Your task to perform on an android device: Is it going to rain this weekend? Image 0: 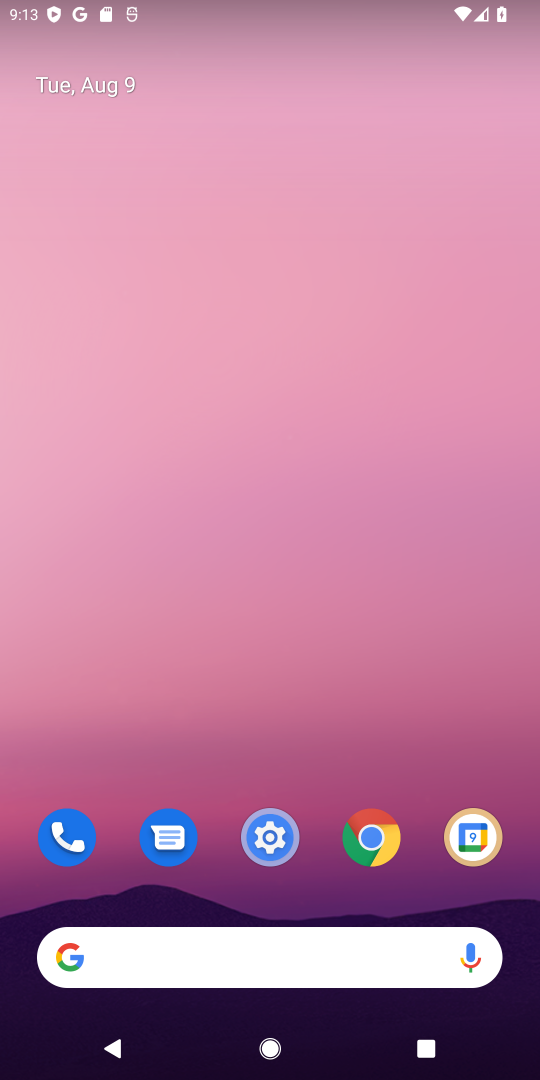
Step 0: drag from (328, 894) to (314, 363)
Your task to perform on an android device: Is it going to rain this weekend? Image 1: 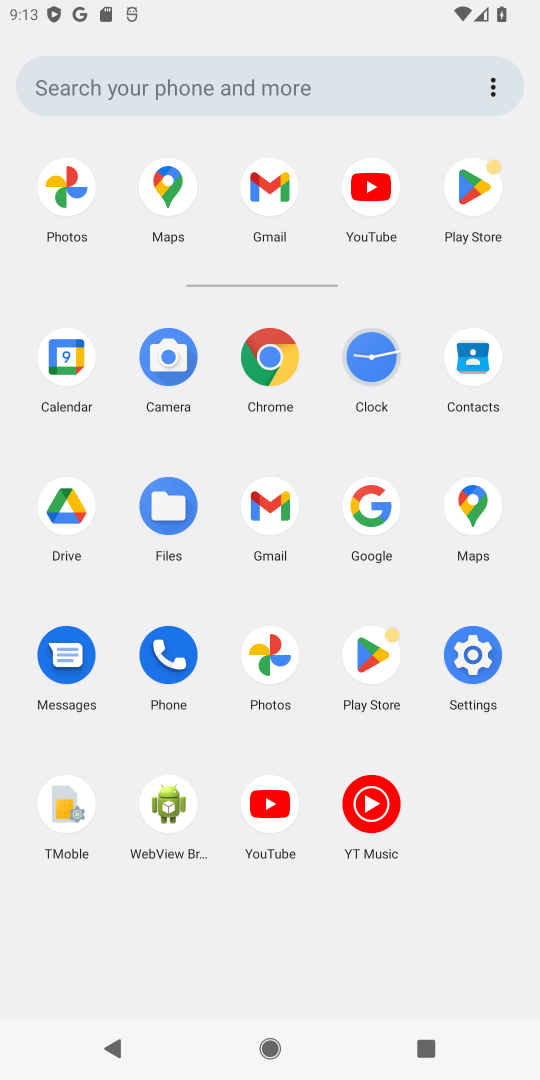
Step 1: click (371, 502)
Your task to perform on an android device: Is it going to rain this weekend? Image 2: 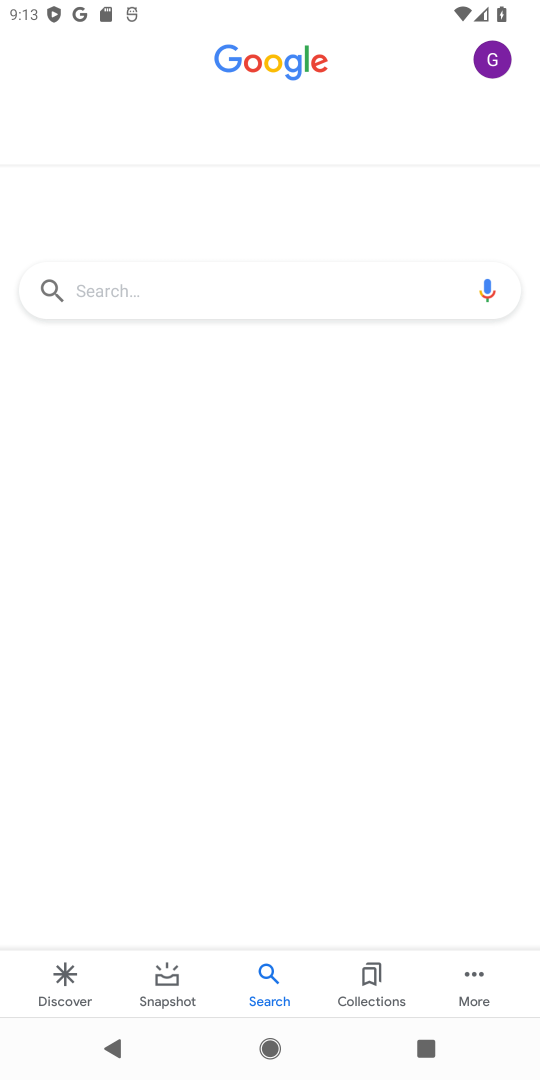
Step 2: click (278, 286)
Your task to perform on an android device: Is it going to rain this weekend? Image 3: 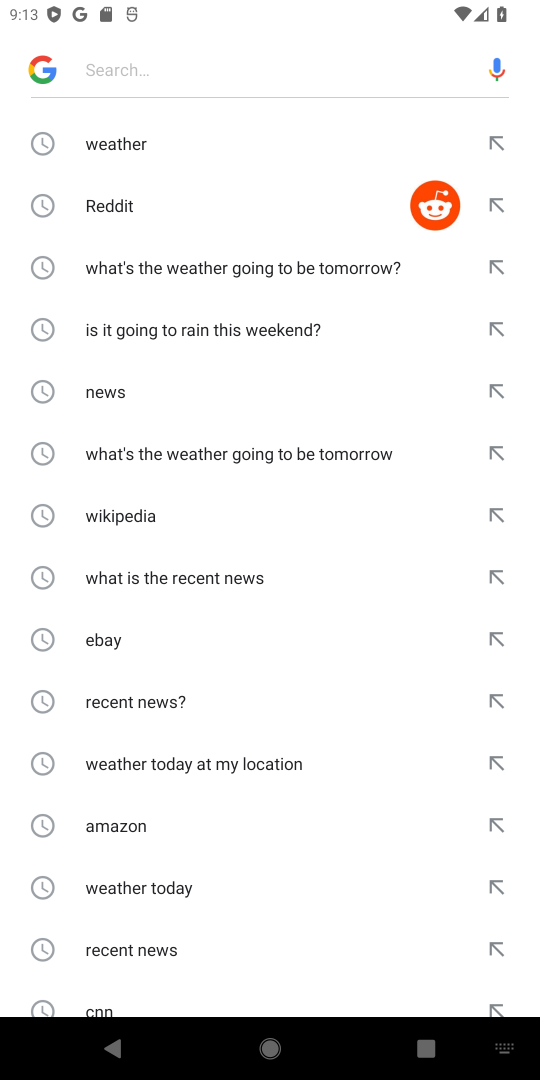
Step 3: click (112, 143)
Your task to perform on an android device: Is it going to rain this weekend? Image 4: 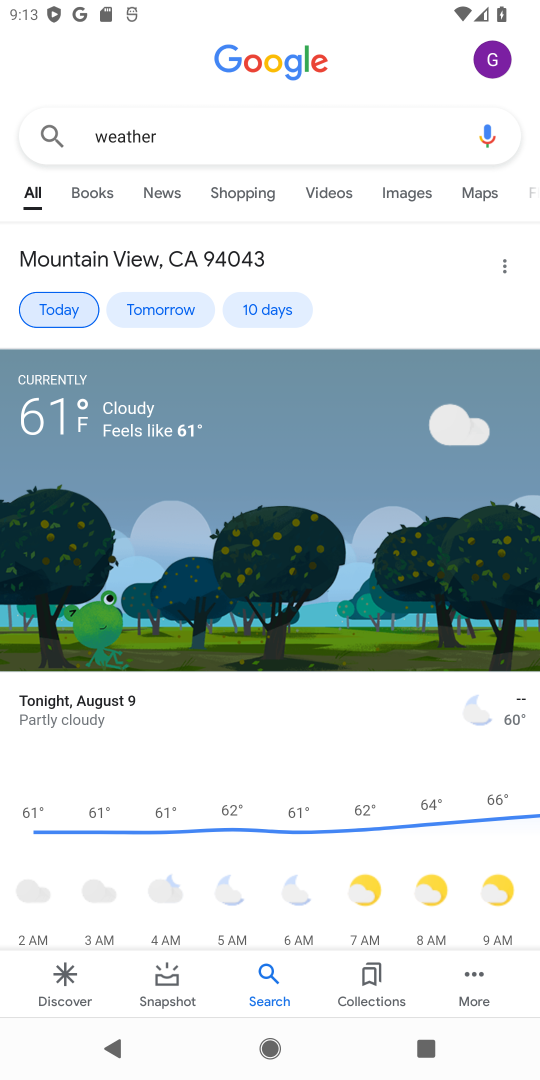
Step 4: click (263, 299)
Your task to perform on an android device: Is it going to rain this weekend? Image 5: 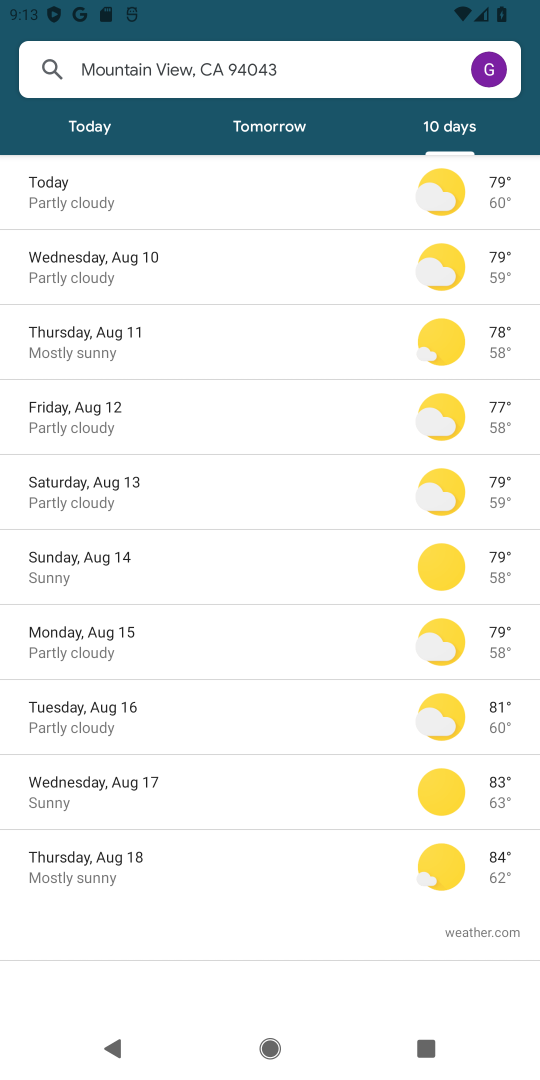
Step 5: click (83, 481)
Your task to perform on an android device: Is it going to rain this weekend? Image 6: 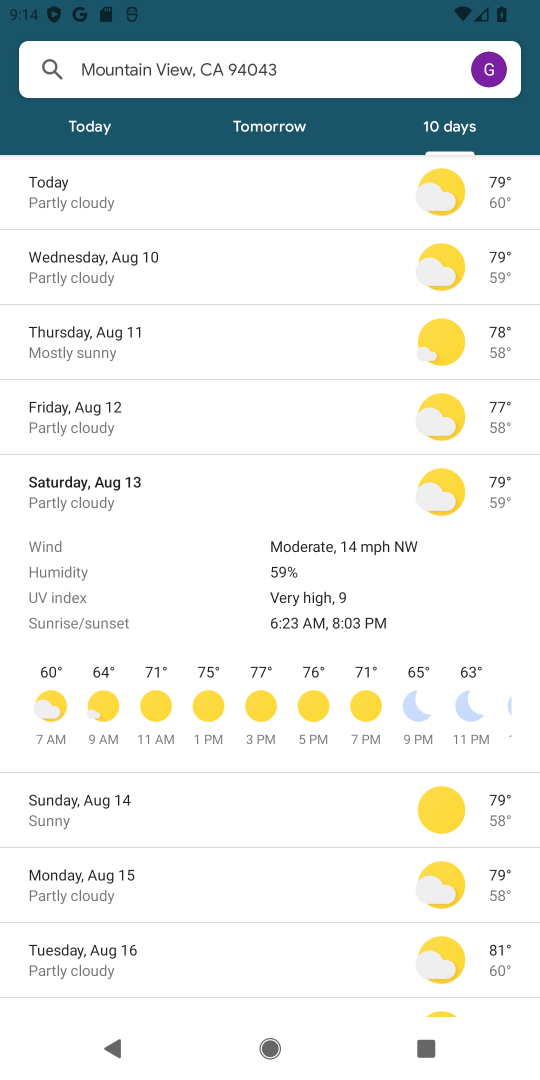
Step 6: task complete